Your task to perform on an android device: Open calendar and show me the second week of next month Image 0: 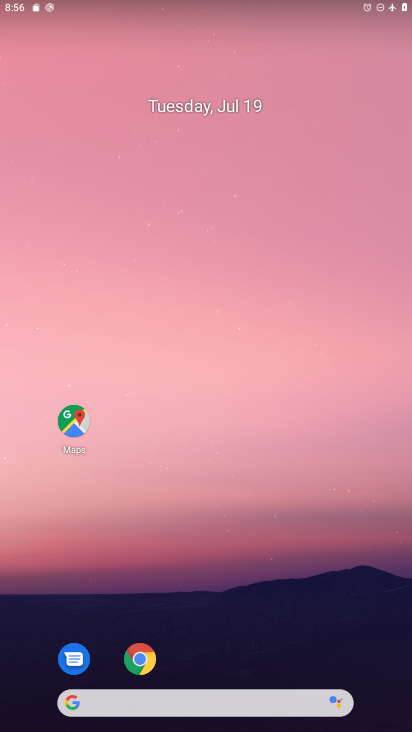
Step 0: drag from (170, 640) to (204, 241)
Your task to perform on an android device: Open calendar and show me the second week of next month Image 1: 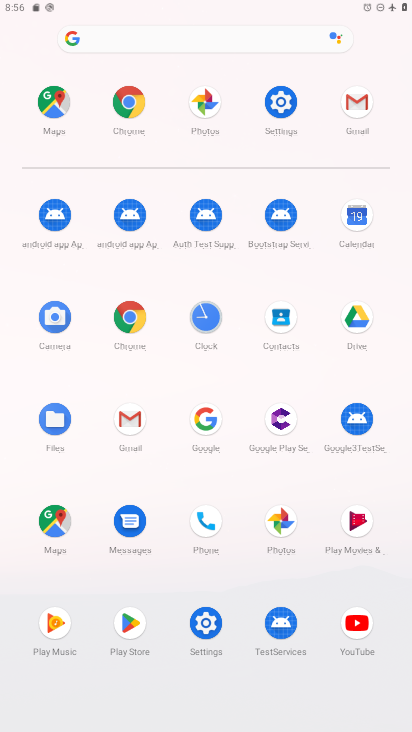
Step 1: click (352, 209)
Your task to perform on an android device: Open calendar and show me the second week of next month Image 2: 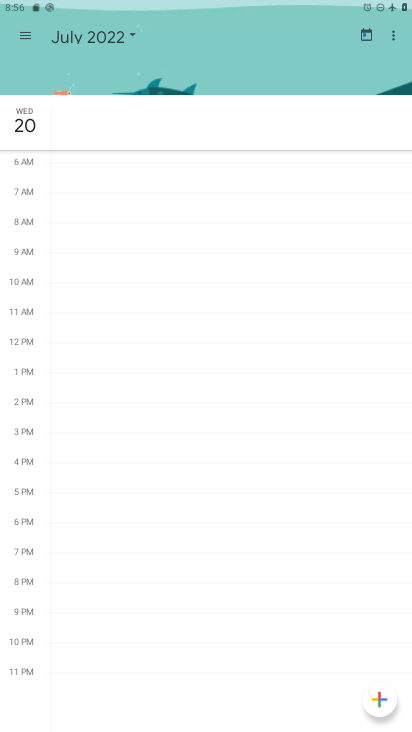
Step 2: click (20, 33)
Your task to perform on an android device: Open calendar and show me the second week of next month Image 3: 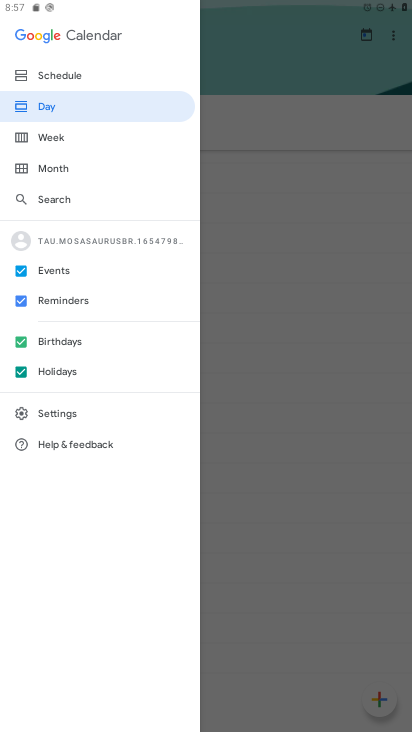
Step 3: click (58, 173)
Your task to perform on an android device: Open calendar and show me the second week of next month Image 4: 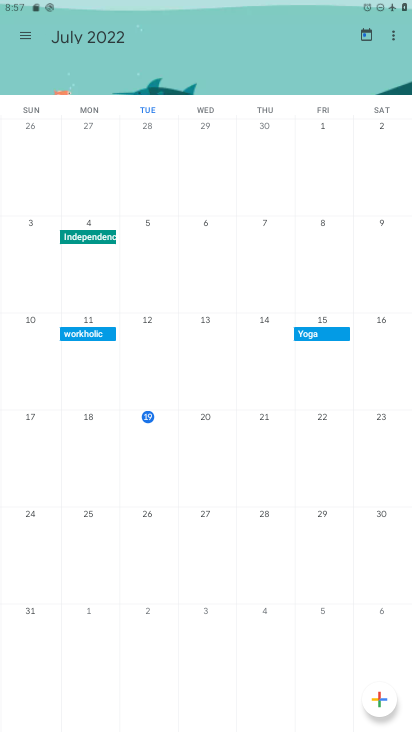
Step 4: click (29, 31)
Your task to perform on an android device: Open calendar and show me the second week of next month Image 5: 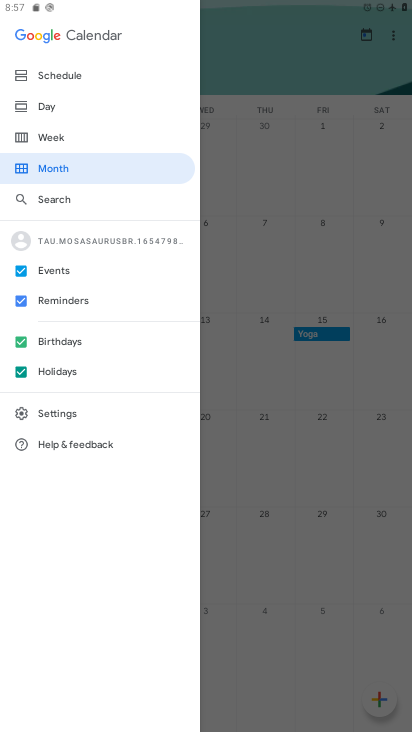
Step 5: click (63, 141)
Your task to perform on an android device: Open calendar and show me the second week of next month Image 6: 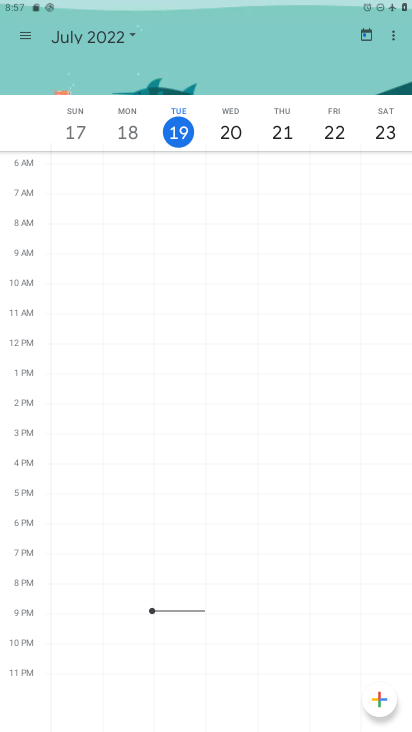
Step 6: click (34, 28)
Your task to perform on an android device: Open calendar and show me the second week of next month Image 7: 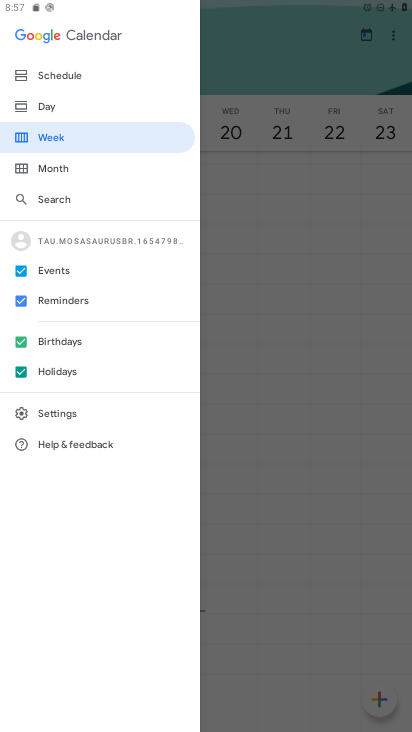
Step 7: click (60, 173)
Your task to perform on an android device: Open calendar and show me the second week of next month Image 8: 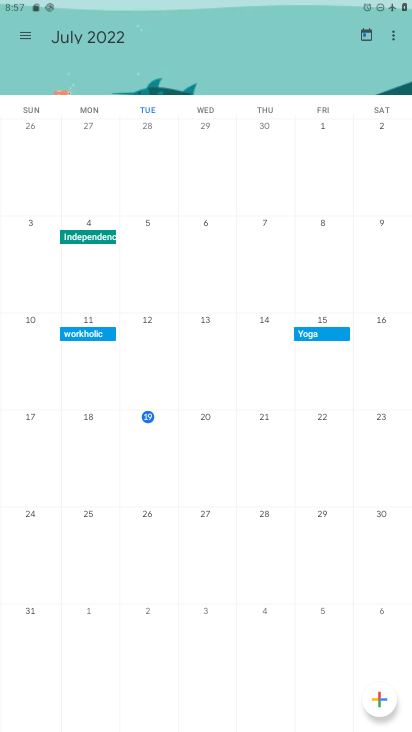
Step 8: drag from (347, 395) to (39, 328)
Your task to perform on an android device: Open calendar and show me the second week of next month Image 9: 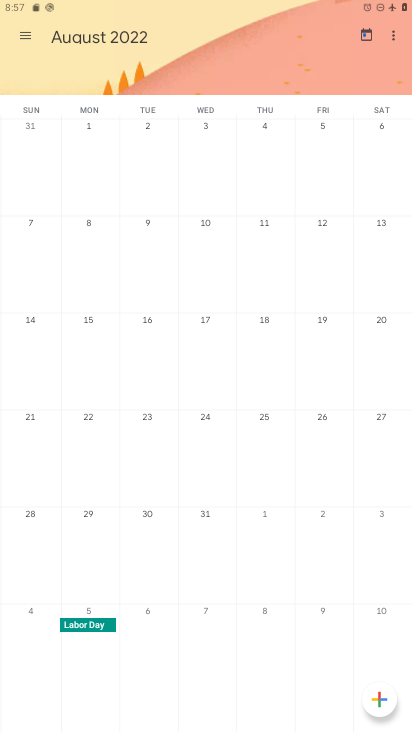
Step 9: click (14, 29)
Your task to perform on an android device: Open calendar and show me the second week of next month Image 10: 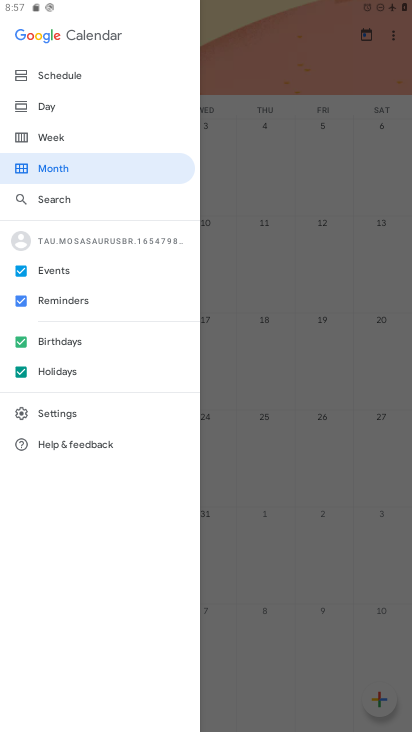
Step 10: click (54, 136)
Your task to perform on an android device: Open calendar and show me the second week of next month Image 11: 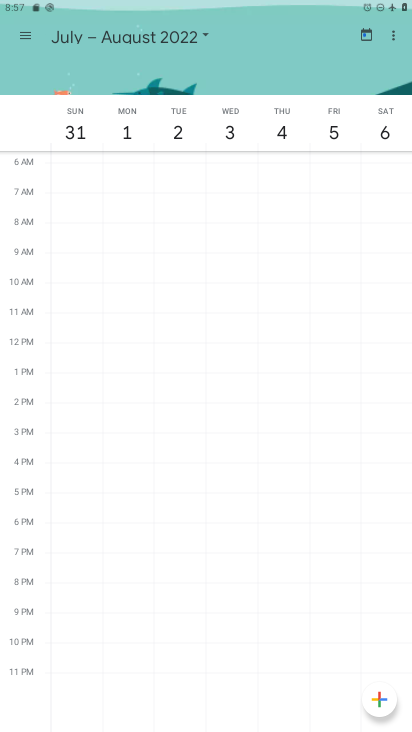
Step 11: task complete